Your task to perform on an android device: Show me popular videos on Youtube Image 0: 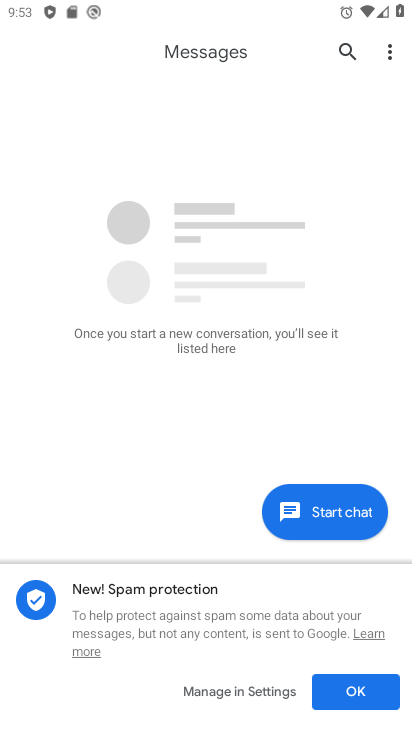
Step 0: press home button
Your task to perform on an android device: Show me popular videos on Youtube Image 1: 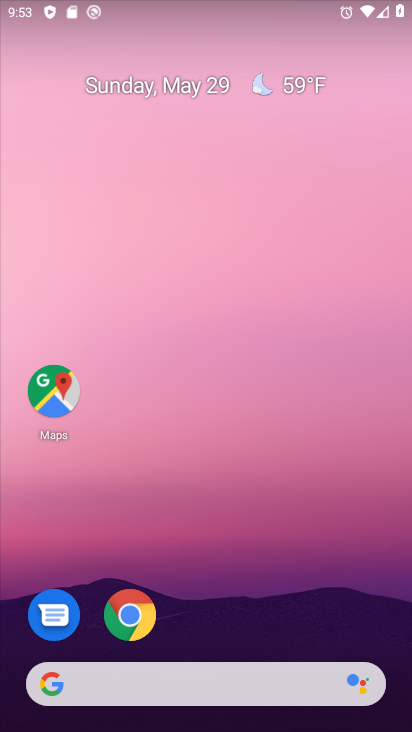
Step 1: drag from (231, 629) to (213, 162)
Your task to perform on an android device: Show me popular videos on Youtube Image 2: 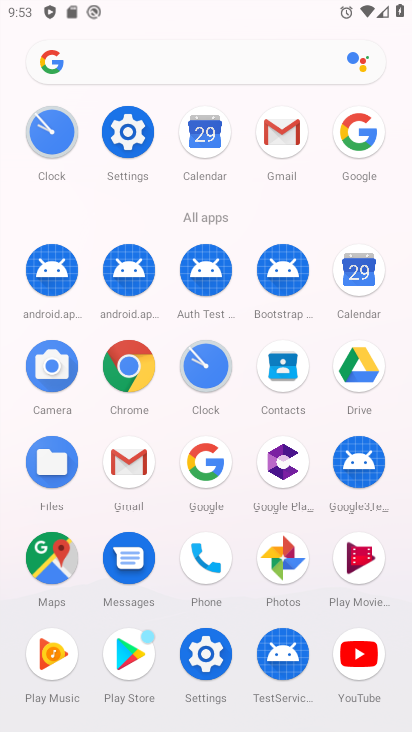
Step 2: click (362, 651)
Your task to perform on an android device: Show me popular videos on Youtube Image 3: 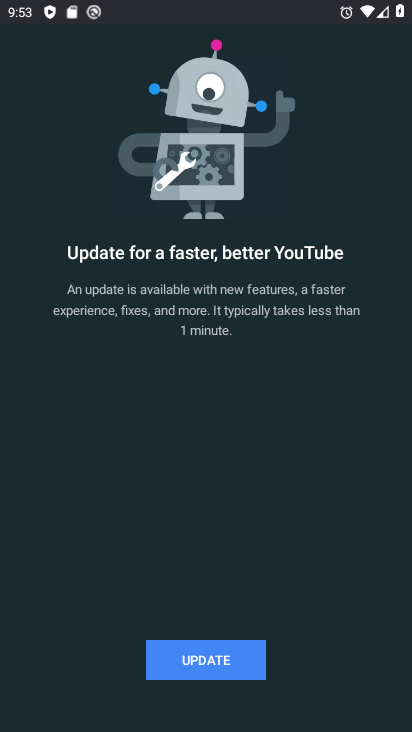
Step 3: click (217, 662)
Your task to perform on an android device: Show me popular videos on Youtube Image 4: 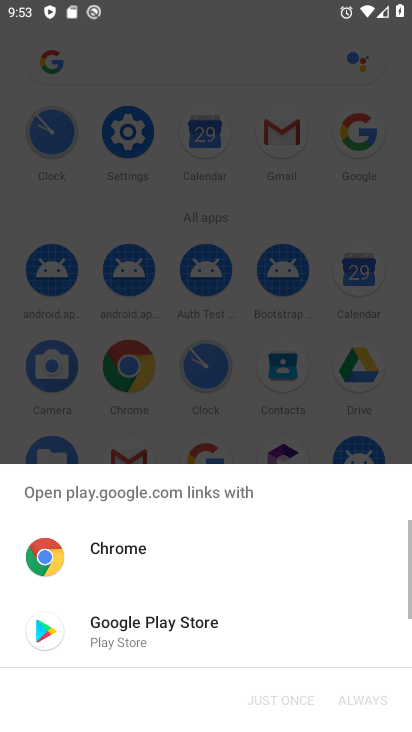
Step 4: click (153, 631)
Your task to perform on an android device: Show me popular videos on Youtube Image 5: 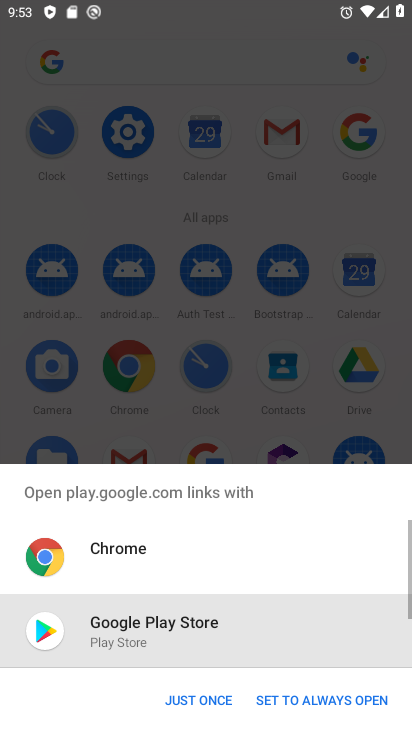
Step 5: click (195, 693)
Your task to perform on an android device: Show me popular videos on Youtube Image 6: 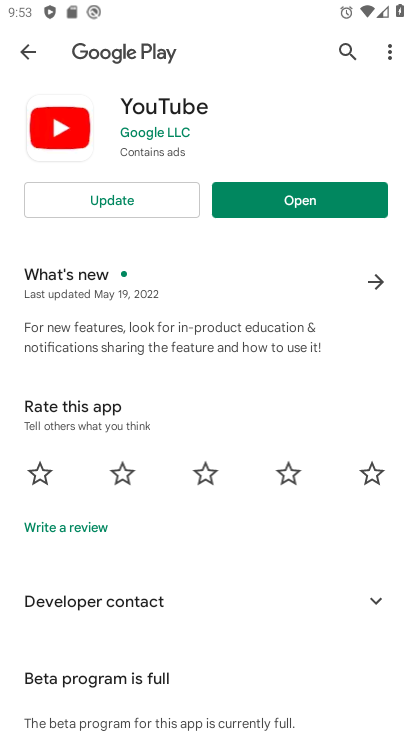
Step 6: click (156, 208)
Your task to perform on an android device: Show me popular videos on Youtube Image 7: 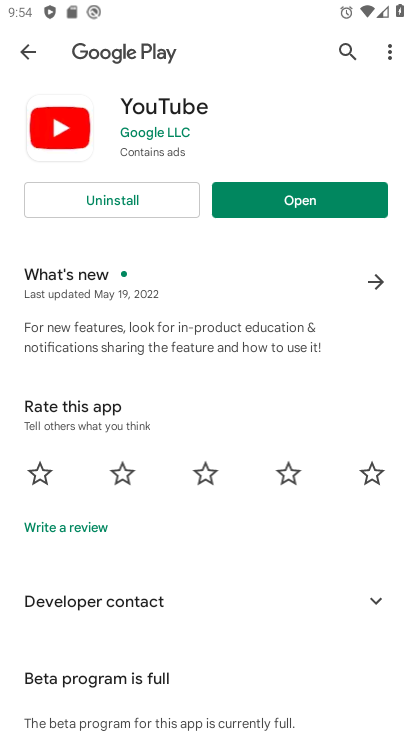
Step 7: click (283, 206)
Your task to perform on an android device: Show me popular videos on Youtube Image 8: 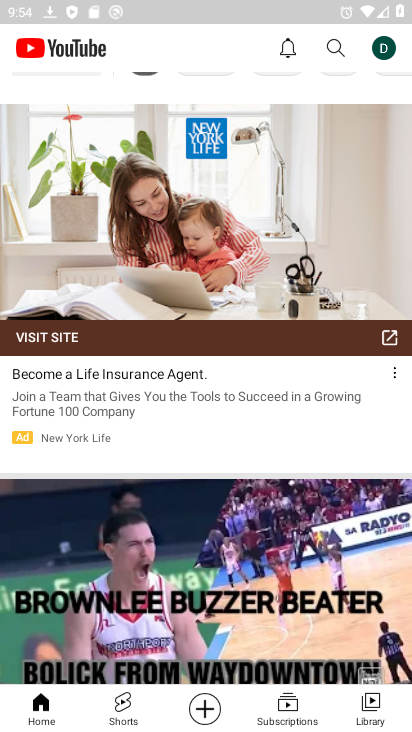
Step 8: task complete